Your task to perform on an android device: Open notification settings Image 0: 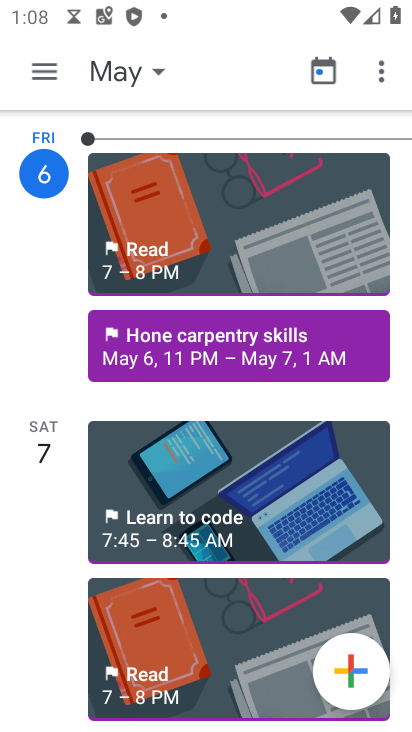
Step 0: press home button
Your task to perform on an android device: Open notification settings Image 1: 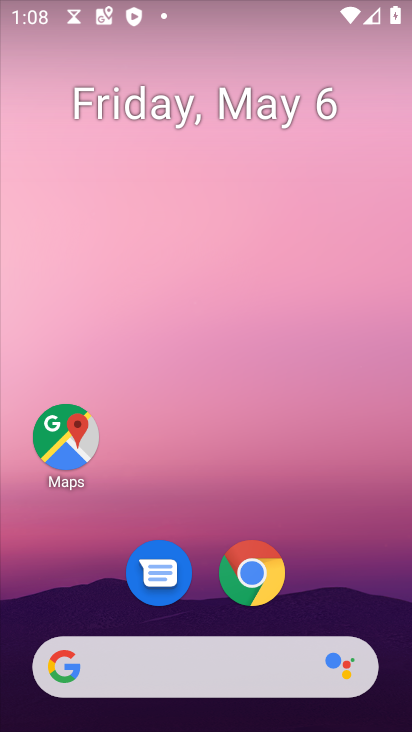
Step 1: drag from (223, 524) to (269, 263)
Your task to perform on an android device: Open notification settings Image 2: 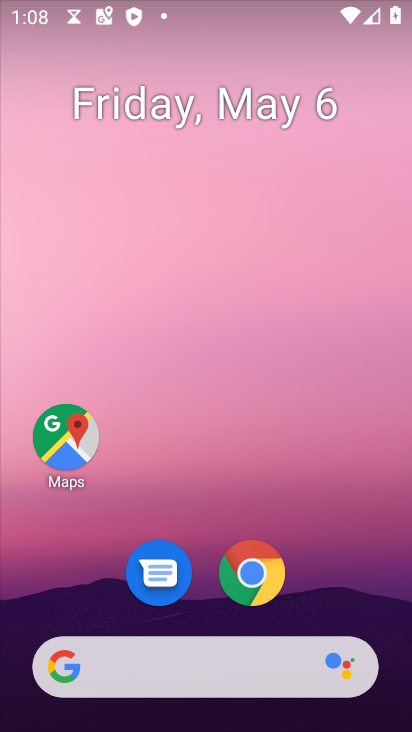
Step 2: drag from (219, 551) to (295, 237)
Your task to perform on an android device: Open notification settings Image 3: 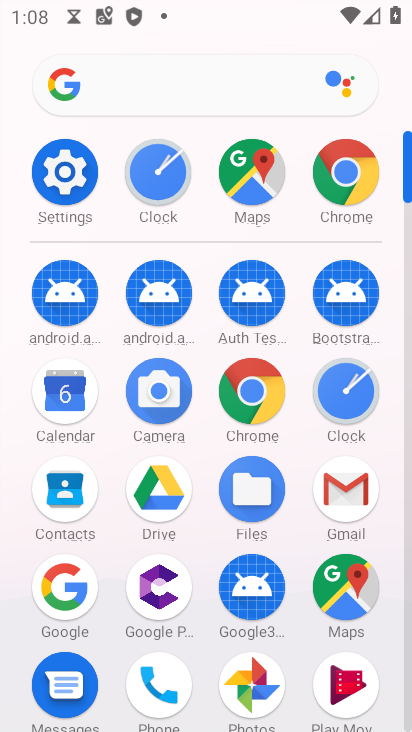
Step 3: click (43, 166)
Your task to perform on an android device: Open notification settings Image 4: 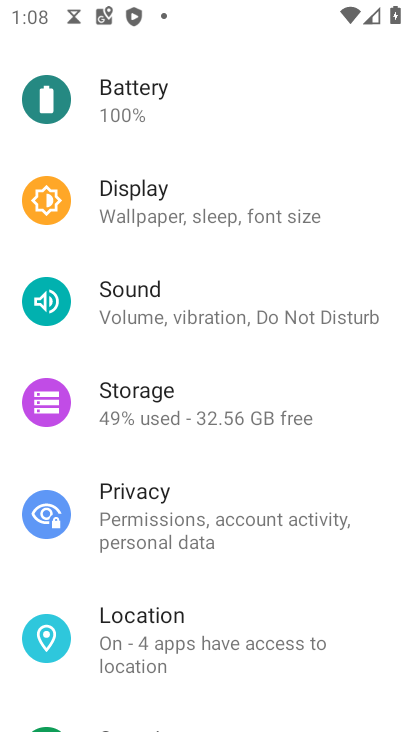
Step 4: drag from (203, 126) to (144, 613)
Your task to perform on an android device: Open notification settings Image 5: 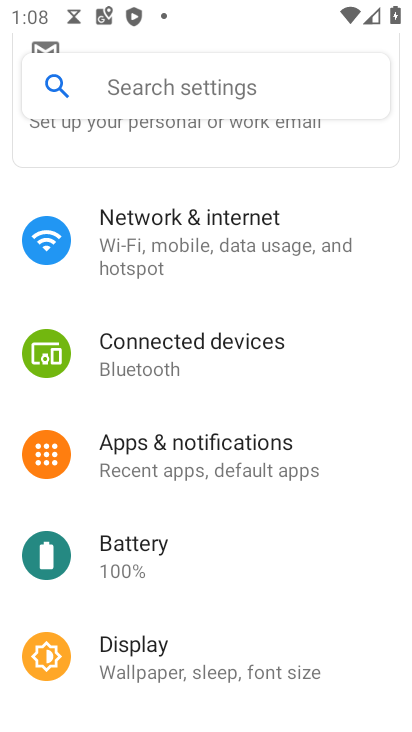
Step 5: click (209, 445)
Your task to perform on an android device: Open notification settings Image 6: 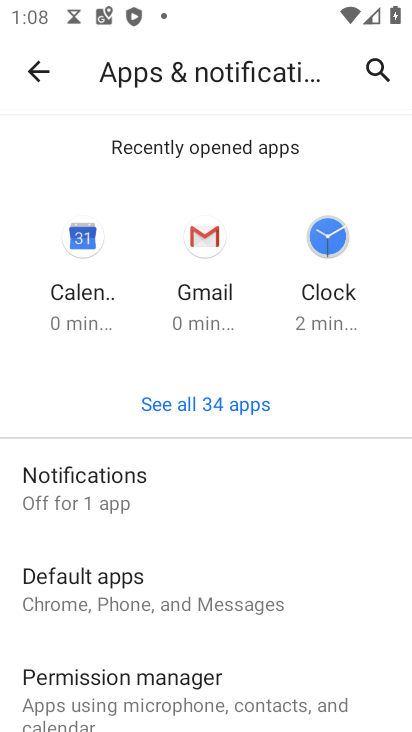
Step 6: click (112, 494)
Your task to perform on an android device: Open notification settings Image 7: 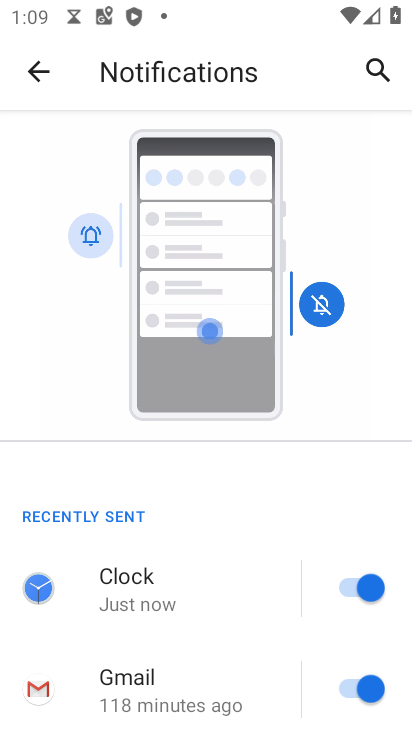
Step 7: task complete